Your task to perform on an android device: open the mobile data screen to see how much data has been used Image 0: 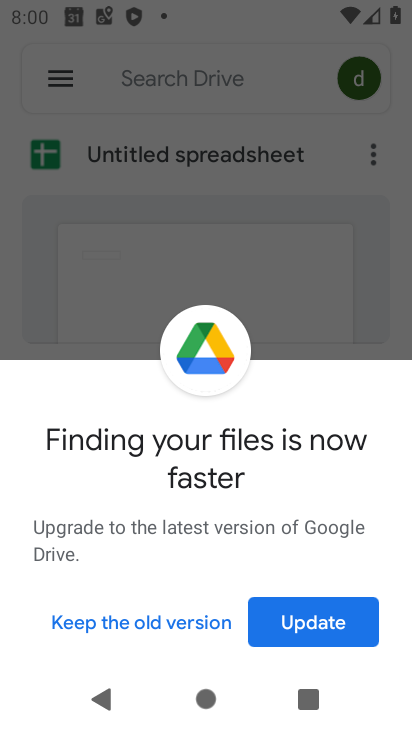
Step 0: press home button
Your task to perform on an android device: open the mobile data screen to see how much data has been used Image 1: 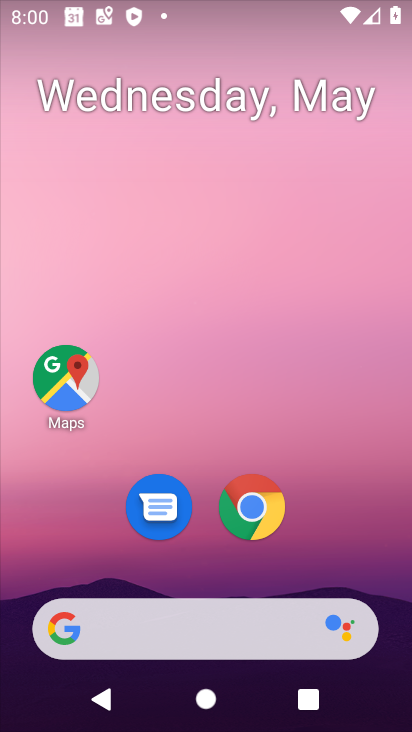
Step 1: drag from (330, 564) to (315, 293)
Your task to perform on an android device: open the mobile data screen to see how much data has been used Image 2: 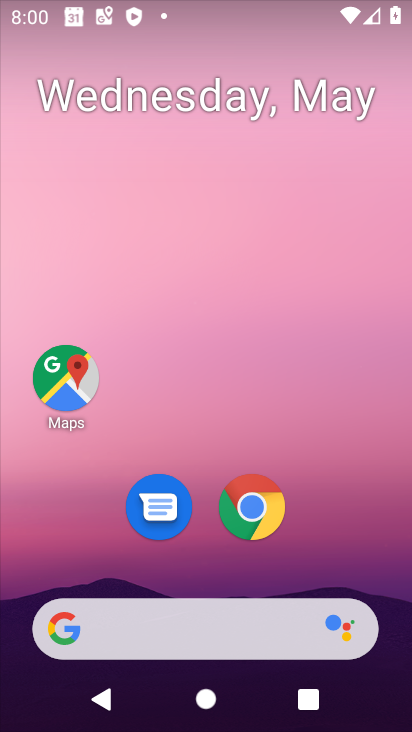
Step 2: drag from (321, 488) to (304, 140)
Your task to perform on an android device: open the mobile data screen to see how much data has been used Image 3: 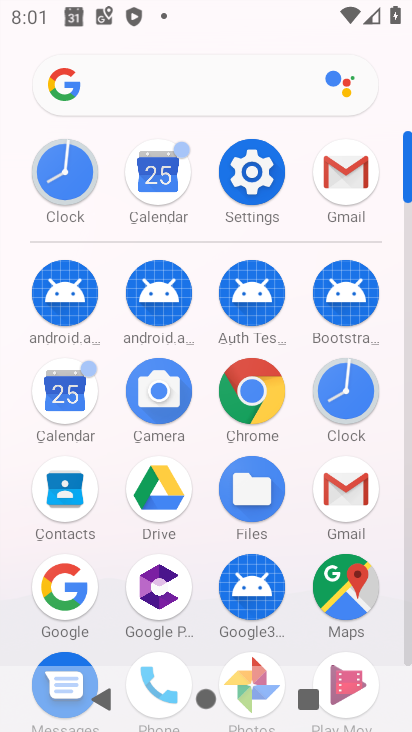
Step 3: click (257, 166)
Your task to perform on an android device: open the mobile data screen to see how much data has been used Image 4: 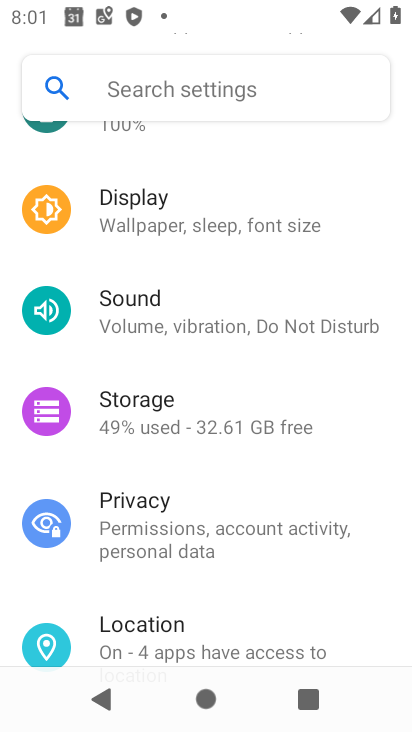
Step 4: drag from (208, 173) to (227, 551)
Your task to perform on an android device: open the mobile data screen to see how much data has been used Image 5: 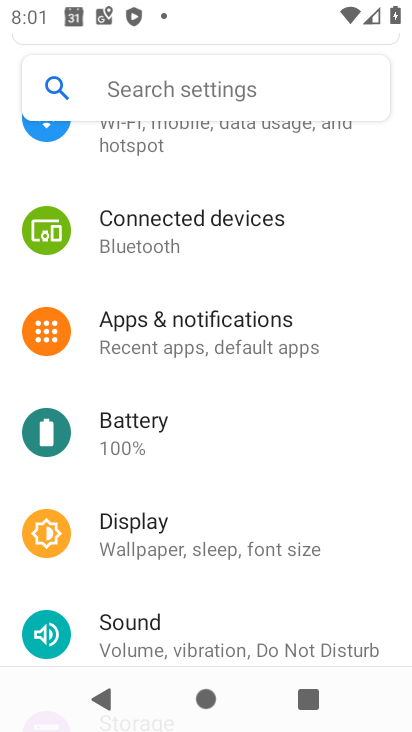
Step 5: drag from (160, 153) to (191, 570)
Your task to perform on an android device: open the mobile data screen to see how much data has been used Image 6: 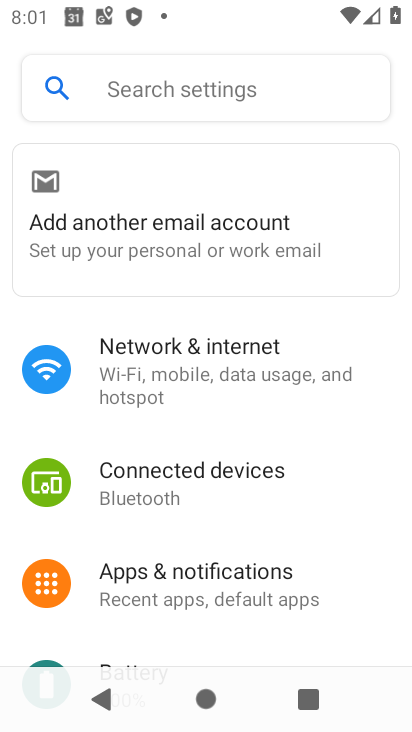
Step 6: click (184, 367)
Your task to perform on an android device: open the mobile data screen to see how much data has been used Image 7: 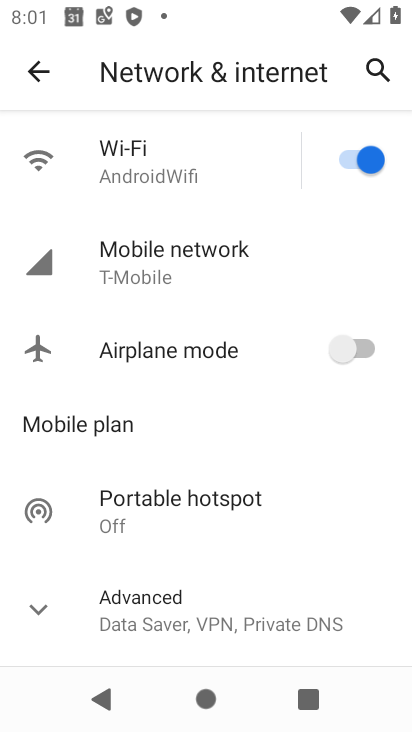
Step 7: click (171, 264)
Your task to perform on an android device: open the mobile data screen to see how much data has been used Image 8: 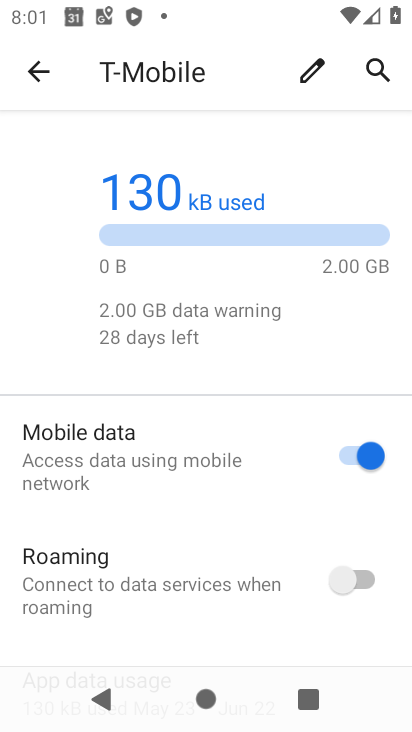
Step 8: task complete